Your task to perform on an android device: Go to accessibility settings Image 0: 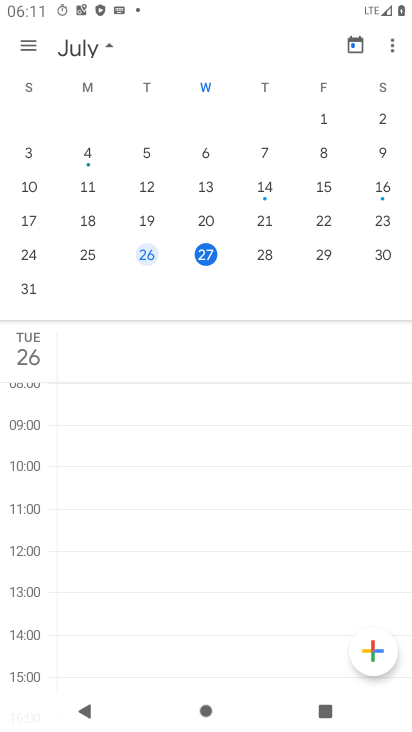
Step 0: press home button
Your task to perform on an android device: Go to accessibility settings Image 1: 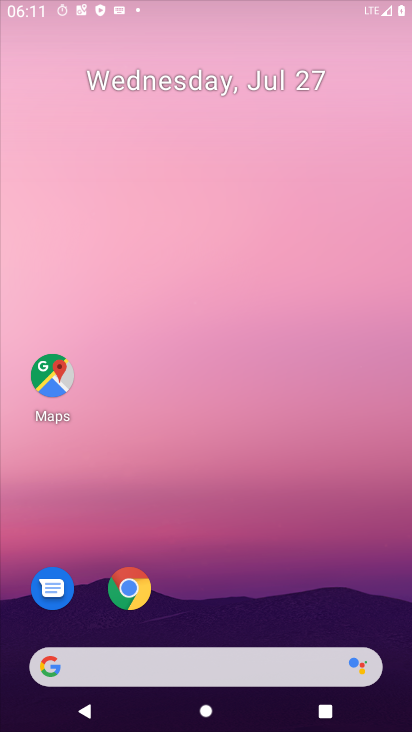
Step 1: drag from (219, 632) to (245, 27)
Your task to perform on an android device: Go to accessibility settings Image 2: 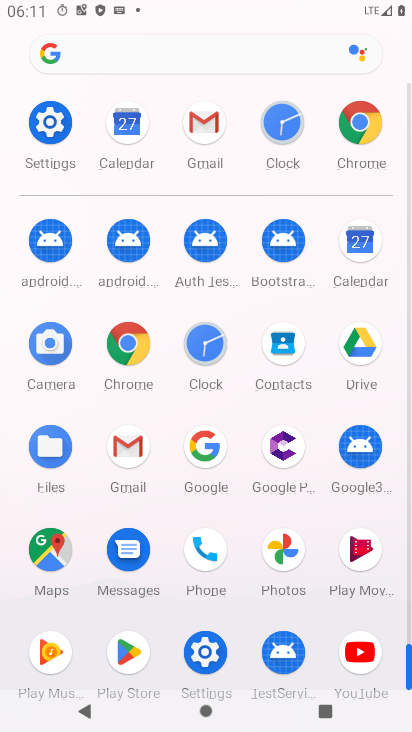
Step 2: click (35, 120)
Your task to perform on an android device: Go to accessibility settings Image 3: 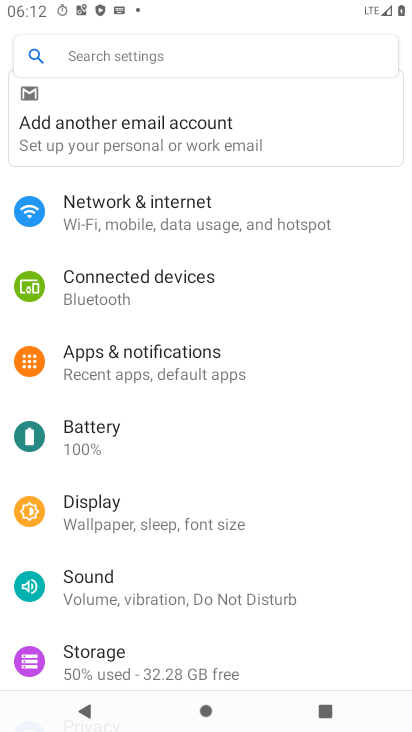
Step 3: drag from (135, 642) to (204, 67)
Your task to perform on an android device: Go to accessibility settings Image 4: 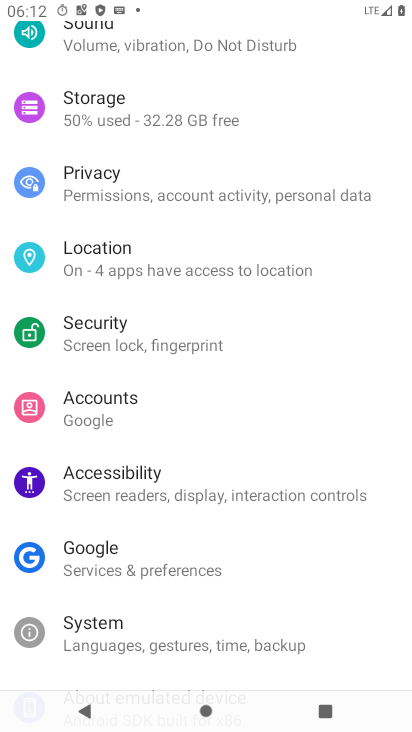
Step 4: click (153, 481)
Your task to perform on an android device: Go to accessibility settings Image 5: 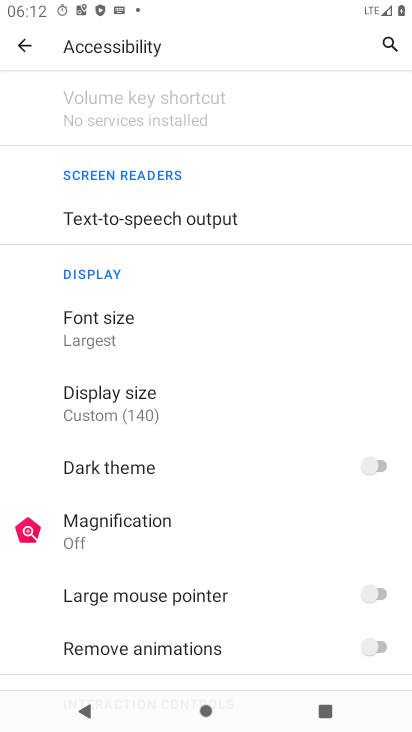
Step 5: task complete